Your task to perform on an android device: open chrome and create a bookmark for the current page Image 0: 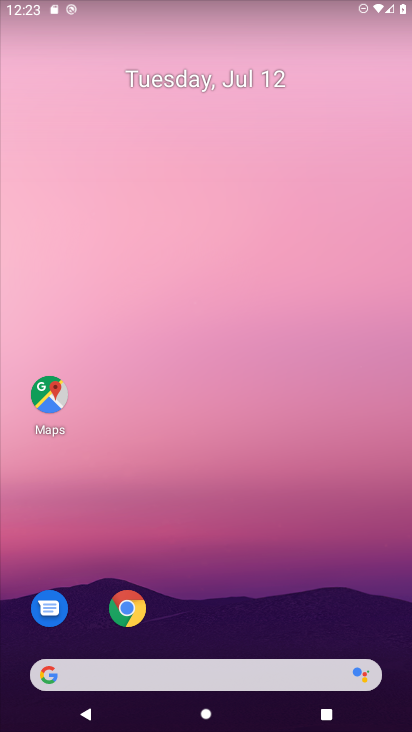
Step 0: drag from (211, 643) to (223, 52)
Your task to perform on an android device: open chrome and create a bookmark for the current page Image 1: 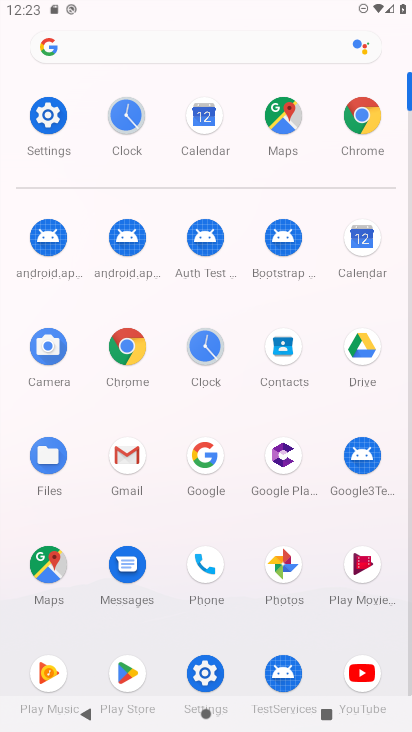
Step 1: click (131, 341)
Your task to perform on an android device: open chrome and create a bookmark for the current page Image 2: 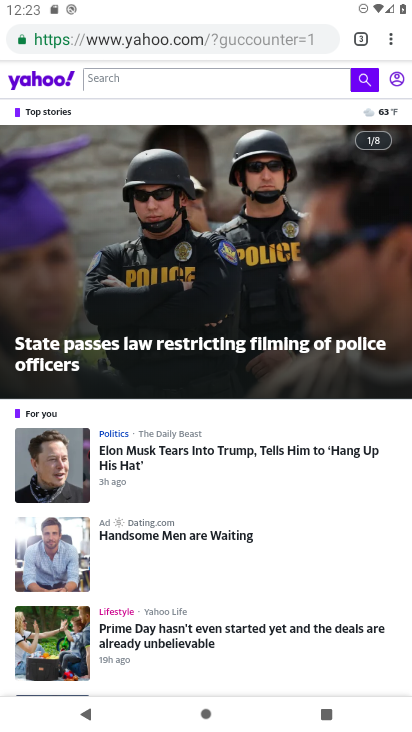
Step 2: task complete